Your task to perform on an android device: change the upload size in google photos Image 0: 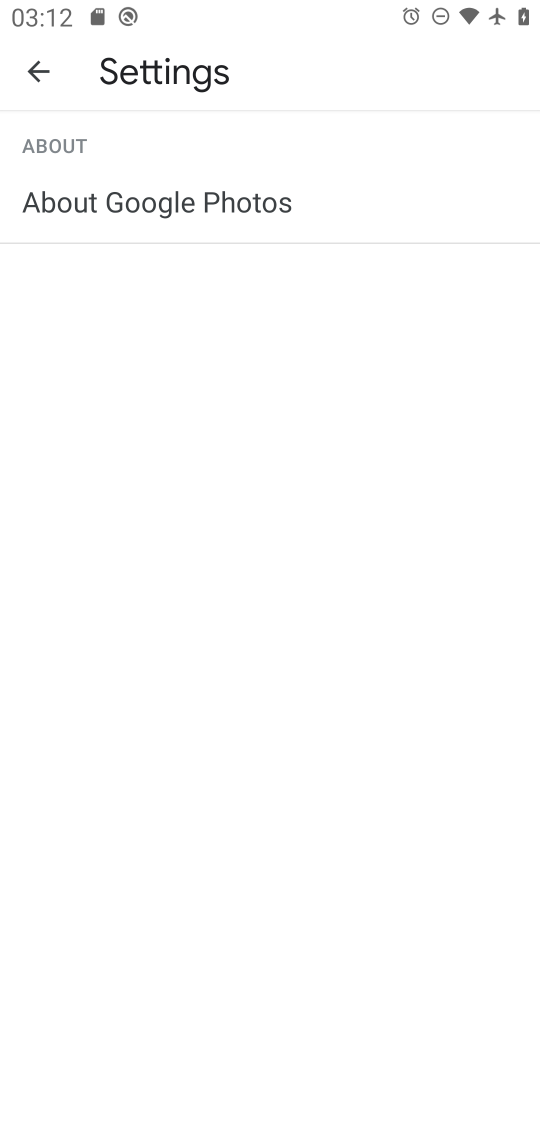
Step 0: press home button
Your task to perform on an android device: change the upload size in google photos Image 1: 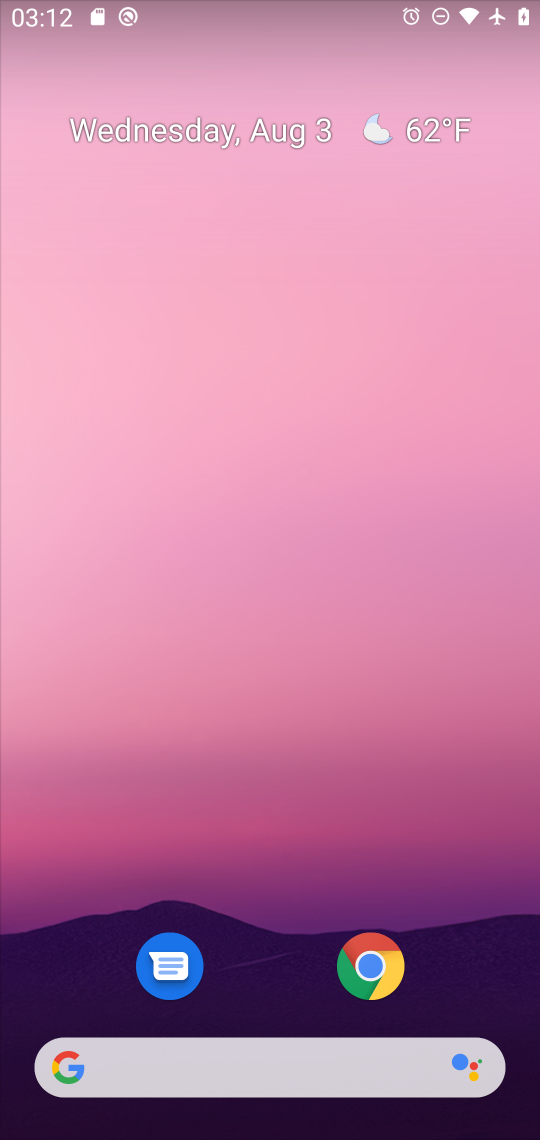
Step 1: drag from (241, 948) to (261, 241)
Your task to perform on an android device: change the upload size in google photos Image 2: 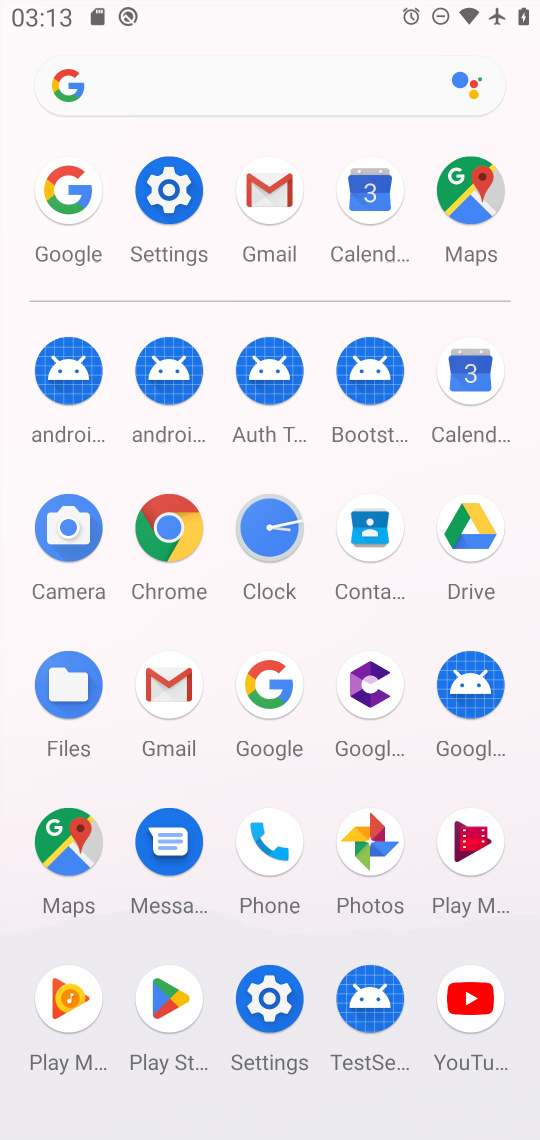
Step 2: click (364, 859)
Your task to perform on an android device: change the upload size in google photos Image 3: 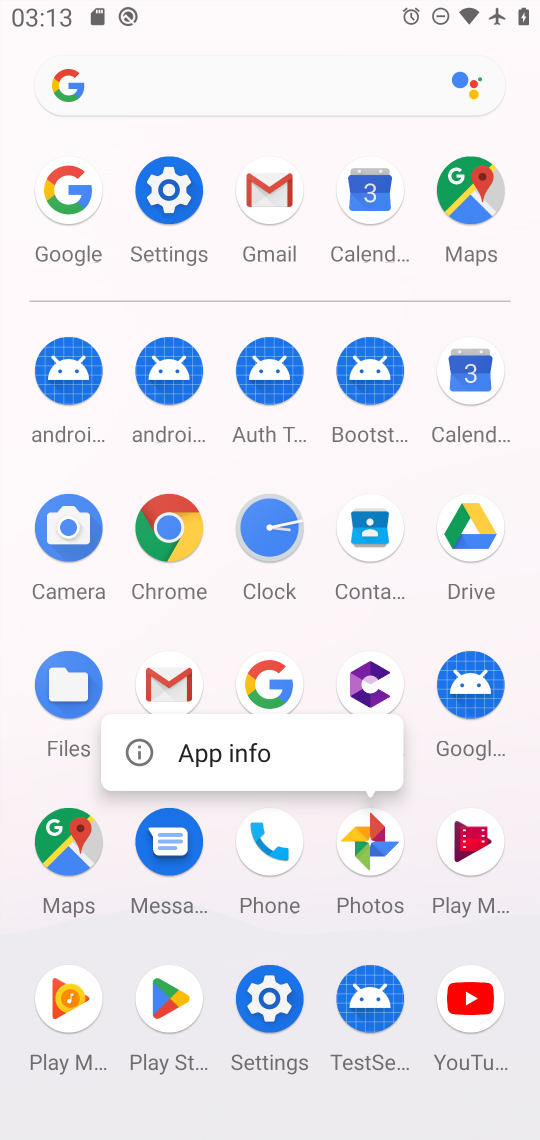
Step 3: click (364, 859)
Your task to perform on an android device: change the upload size in google photos Image 4: 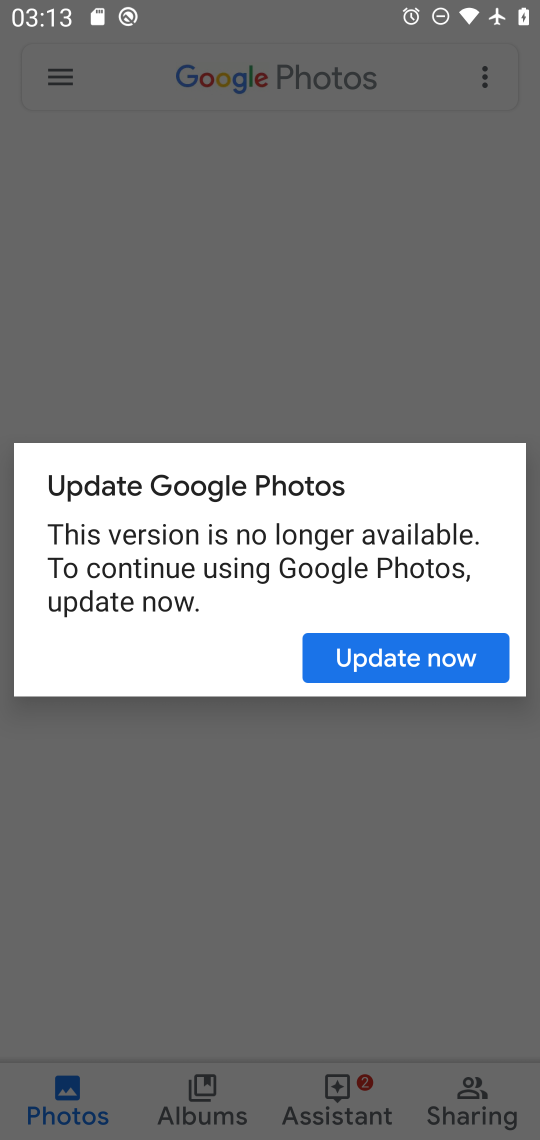
Step 4: click (383, 661)
Your task to perform on an android device: change the upload size in google photos Image 5: 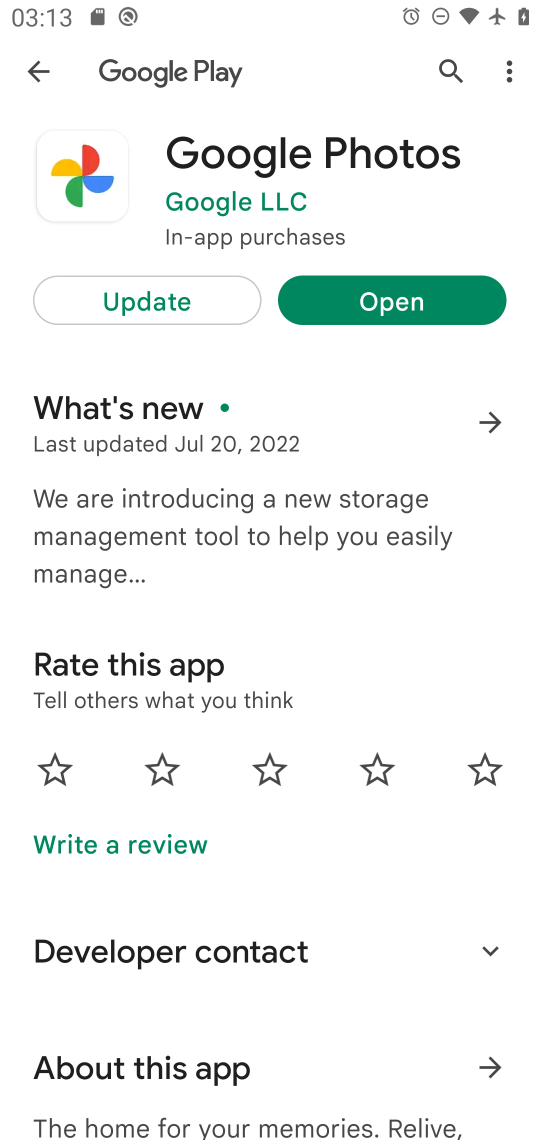
Step 5: click (349, 315)
Your task to perform on an android device: change the upload size in google photos Image 6: 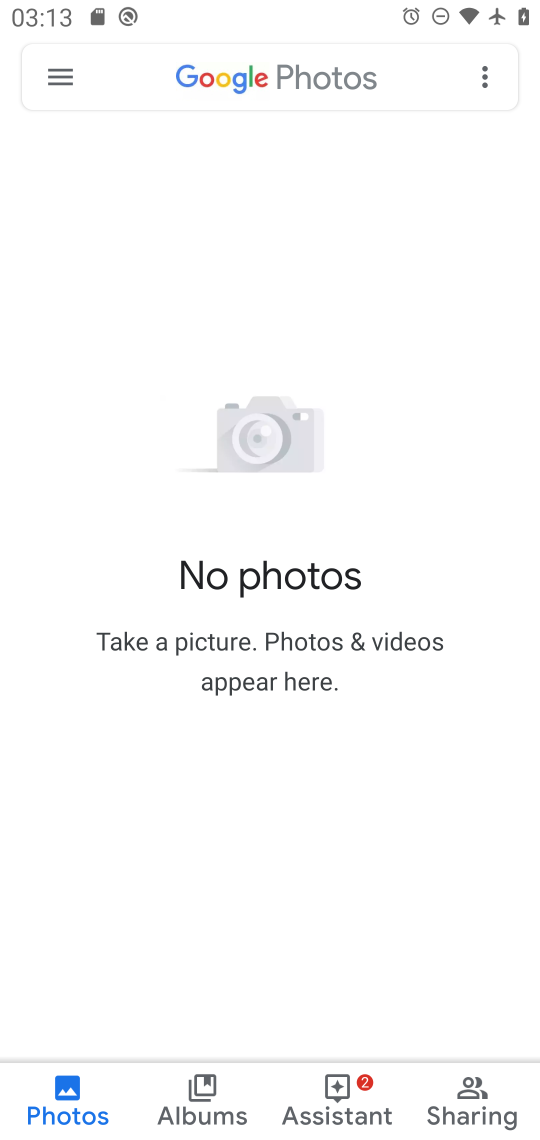
Step 6: click (58, 102)
Your task to perform on an android device: change the upload size in google photos Image 7: 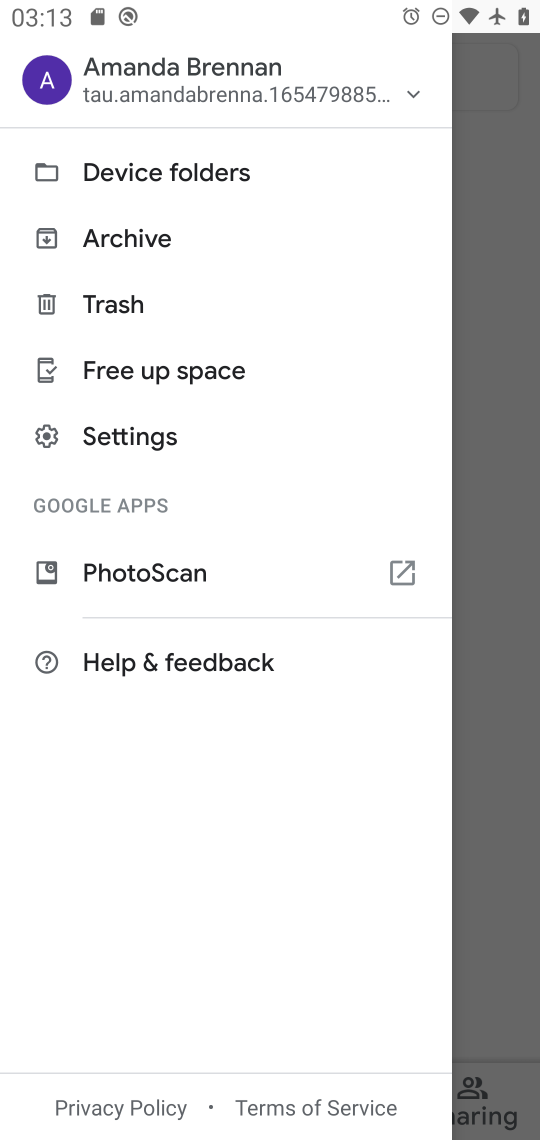
Step 7: click (158, 439)
Your task to perform on an android device: change the upload size in google photos Image 8: 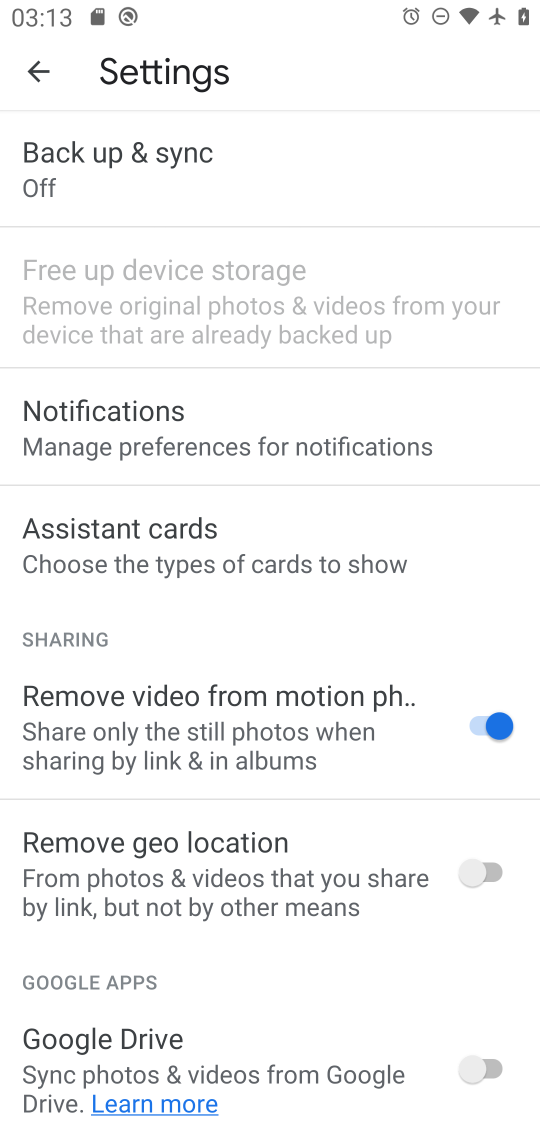
Step 8: click (197, 197)
Your task to perform on an android device: change the upload size in google photos Image 9: 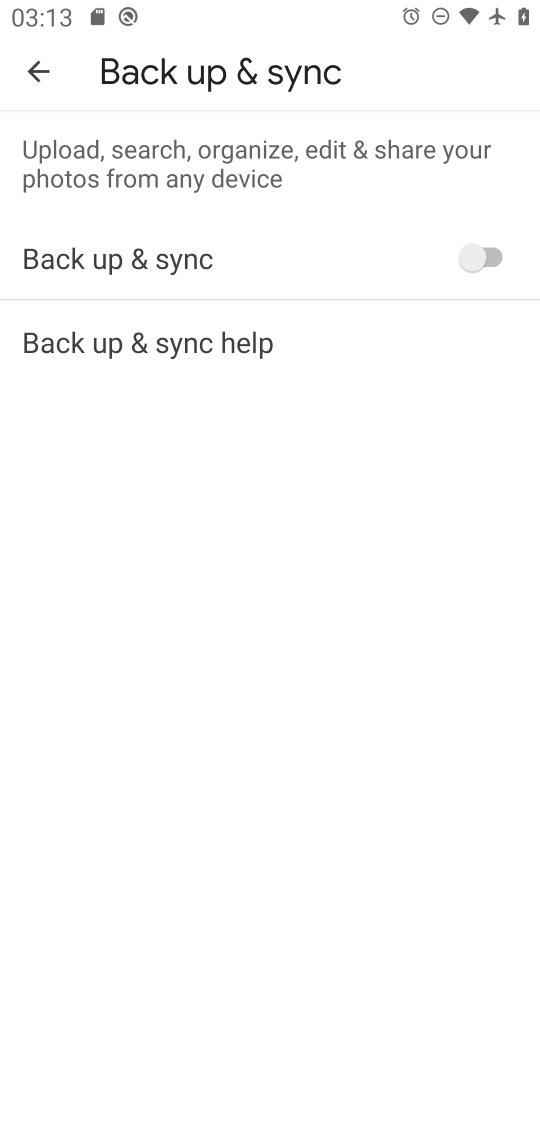
Step 9: click (422, 260)
Your task to perform on an android device: change the upload size in google photos Image 10: 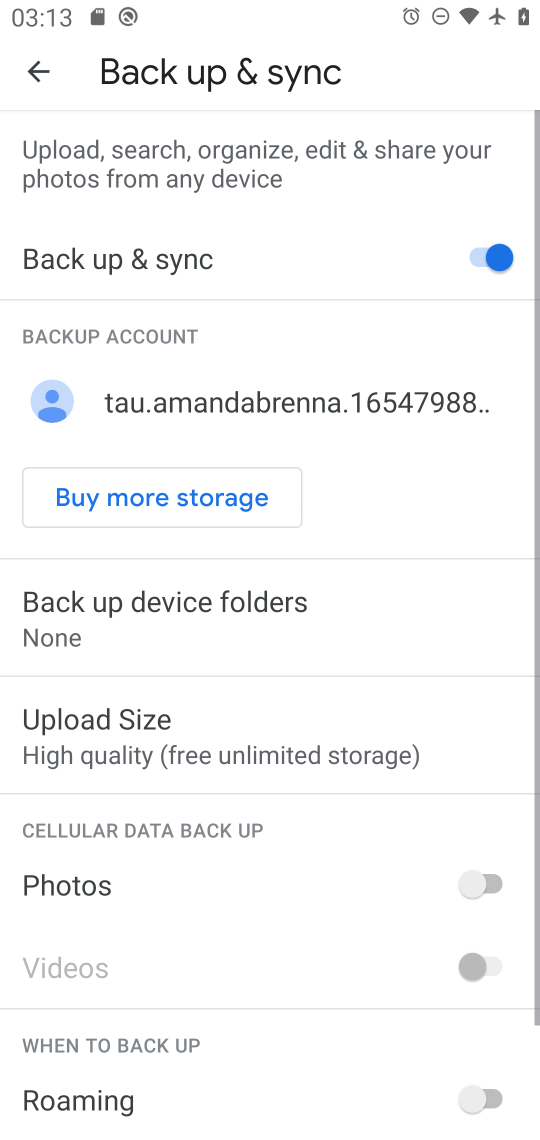
Step 10: click (176, 734)
Your task to perform on an android device: change the upload size in google photos Image 11: 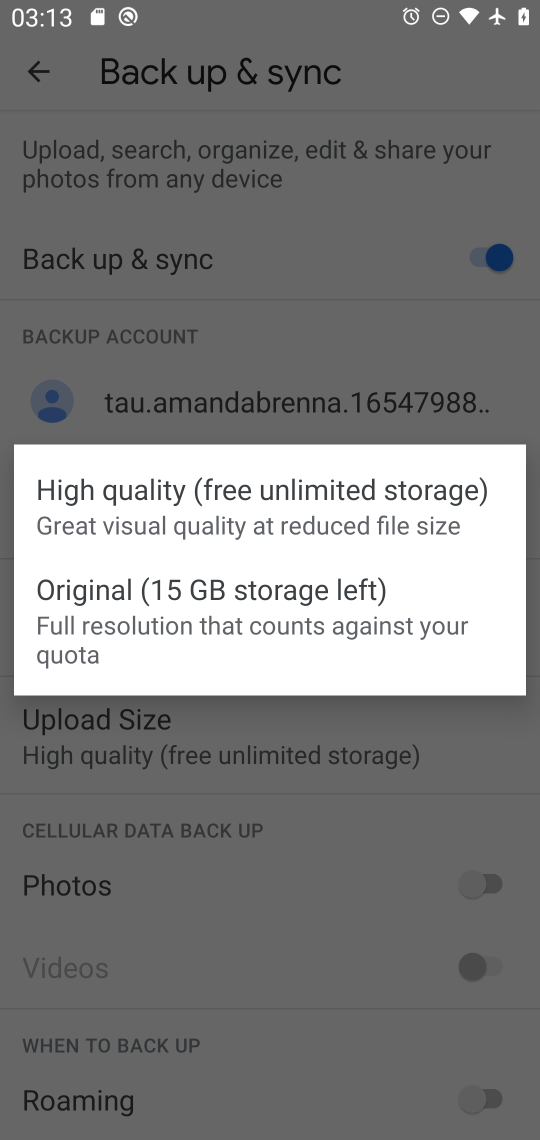
Step 11: click (187, 589)
Your task to perform on an android device: change the upload size in google photos Image 12: 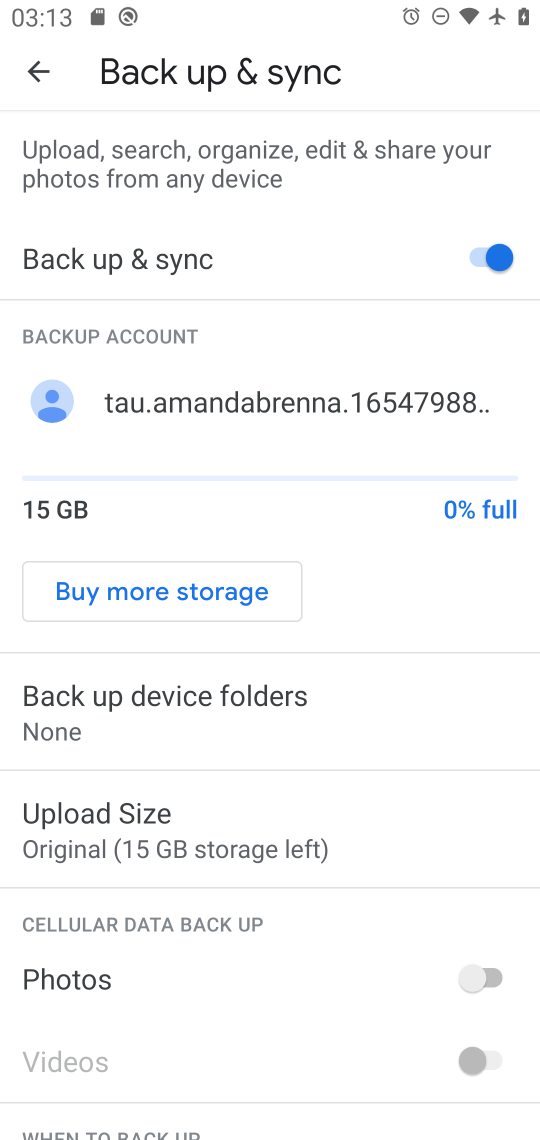
Step 12: task complete